Your task to perform on an android device: turn off notifications in google photos Image 0: 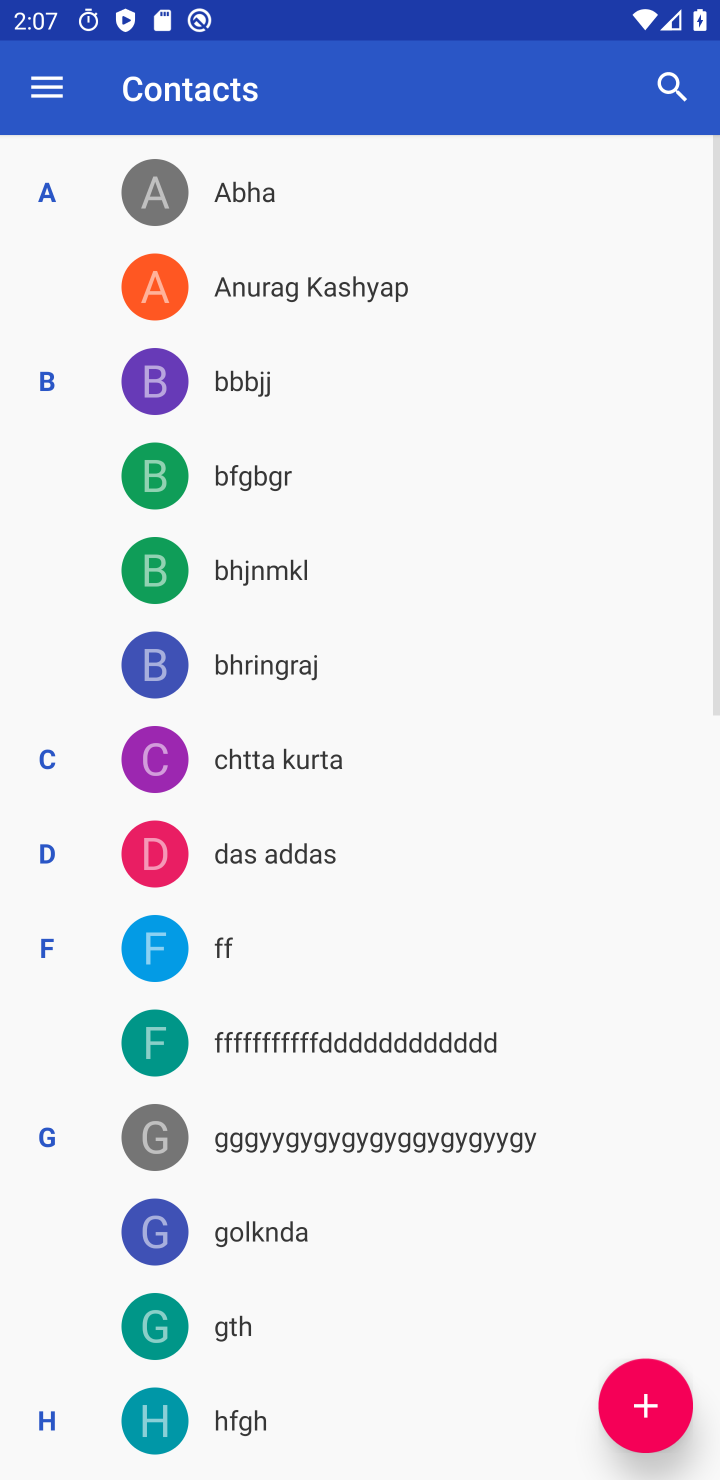
Step 0: press home button
Your task to perform on an android device: turn off notifications in google photos Image 1: 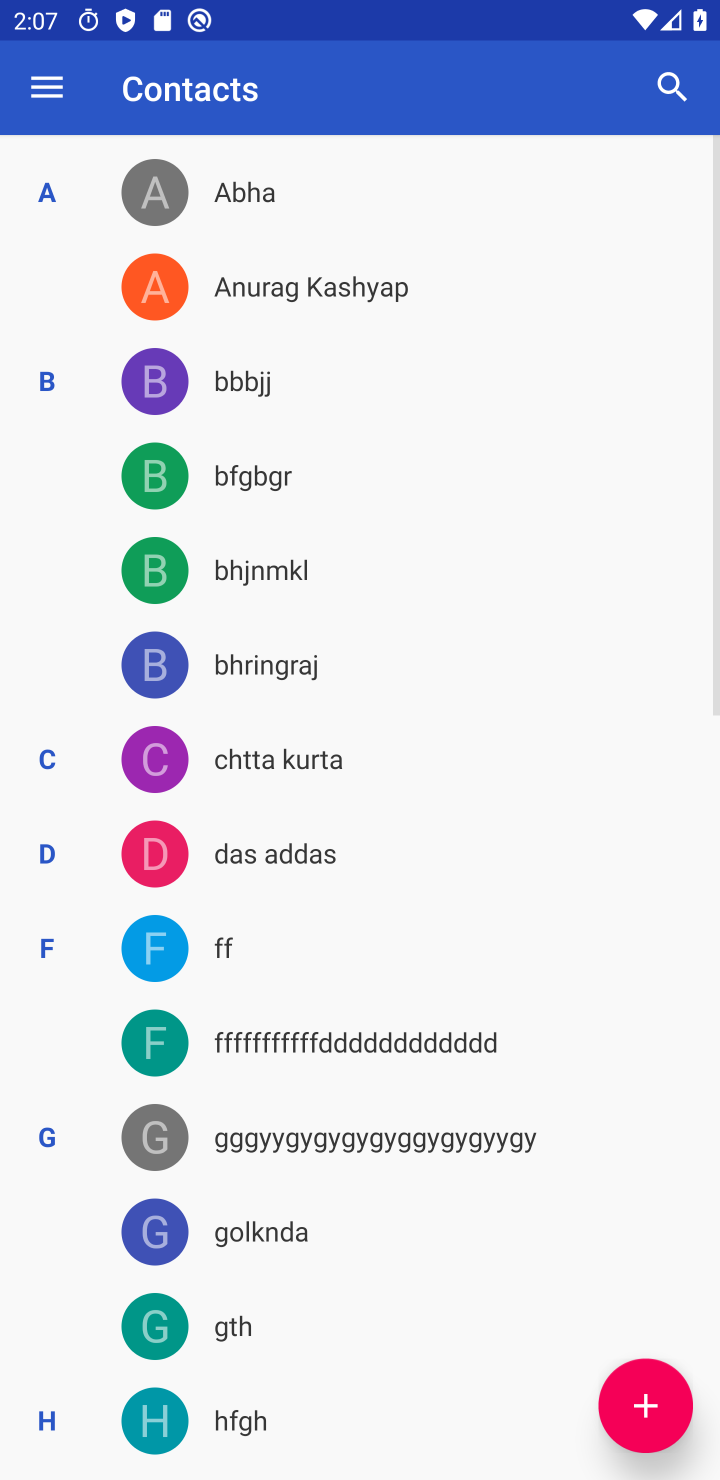
Step 1: click (486, 479)
Your task to perform on an android device: turn off notifications in google photos Image 2: 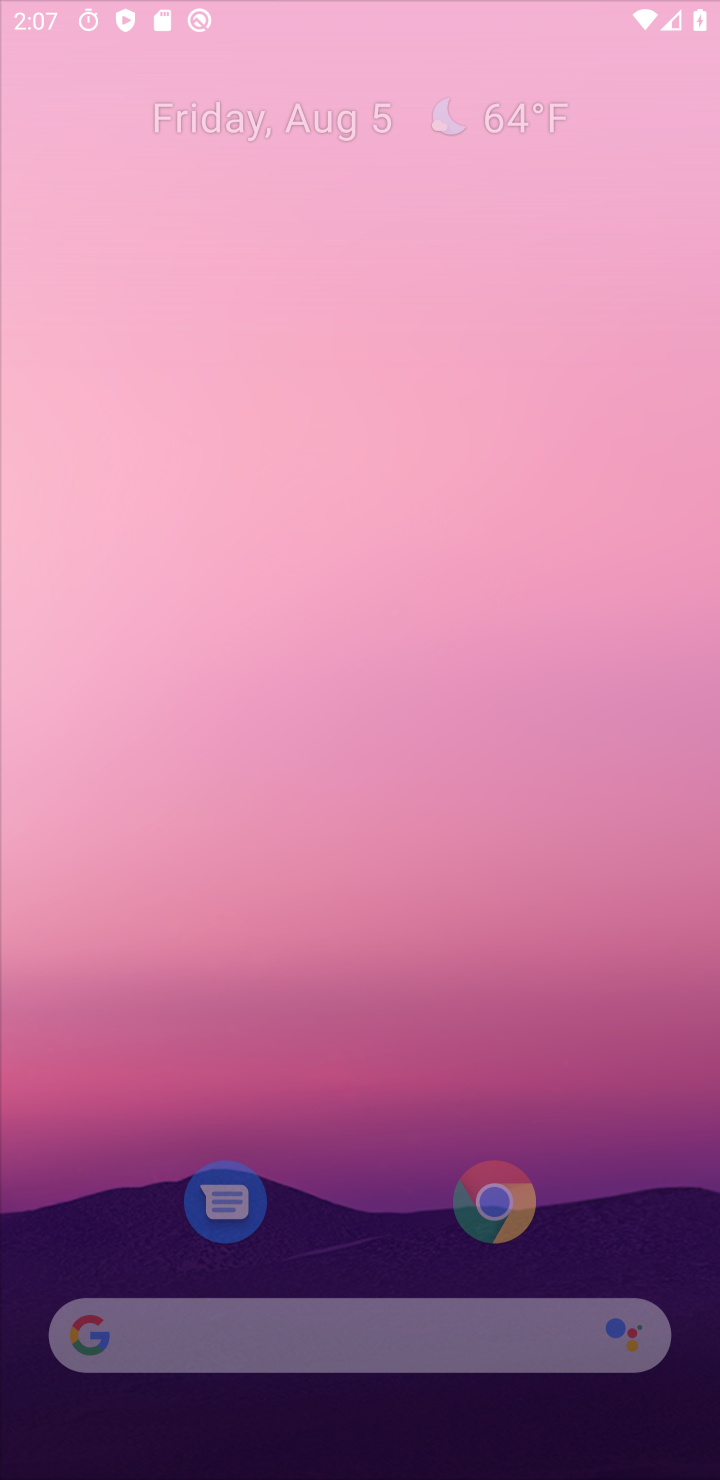
Step 2: drag from (319, 612) to (356, 449)
Your task to perform on an android device: turn off notifications in google photos Image 3: 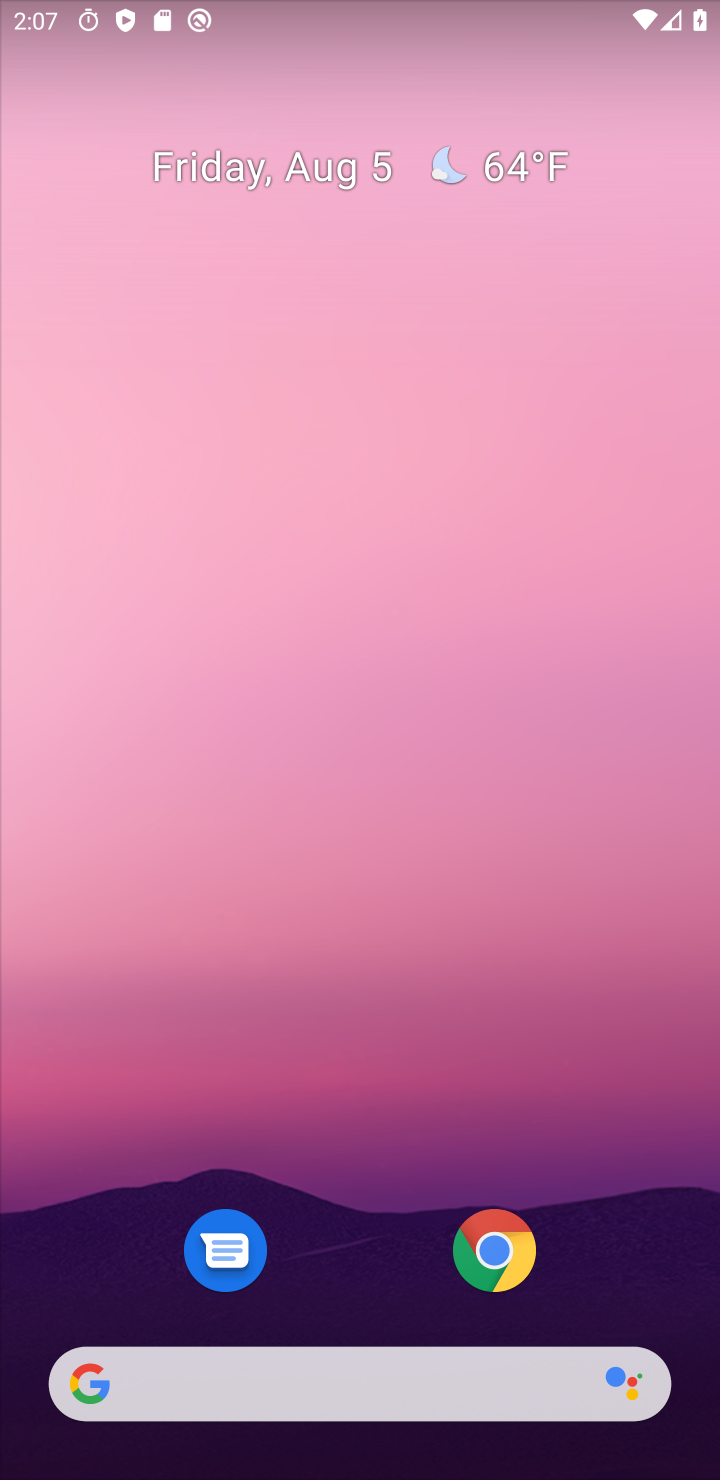
Step 3: drag from (447, 157) to (516, 6)
Your task to perform on an android device: turn off notifications in google photos Image 4: 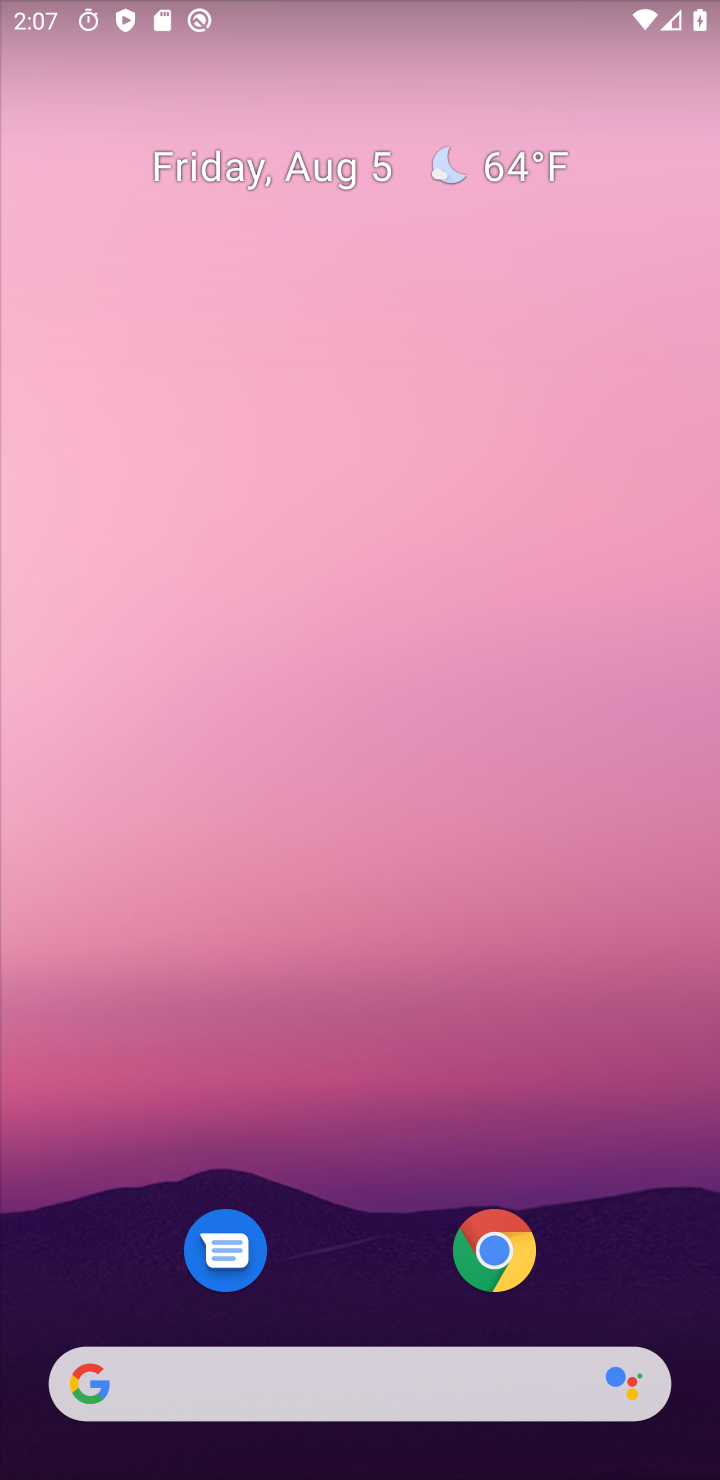
Step 4: drag from (338, 1190) to (469, 81)
Your task to perform on an android device: turn off notifications in google photos Image 5: 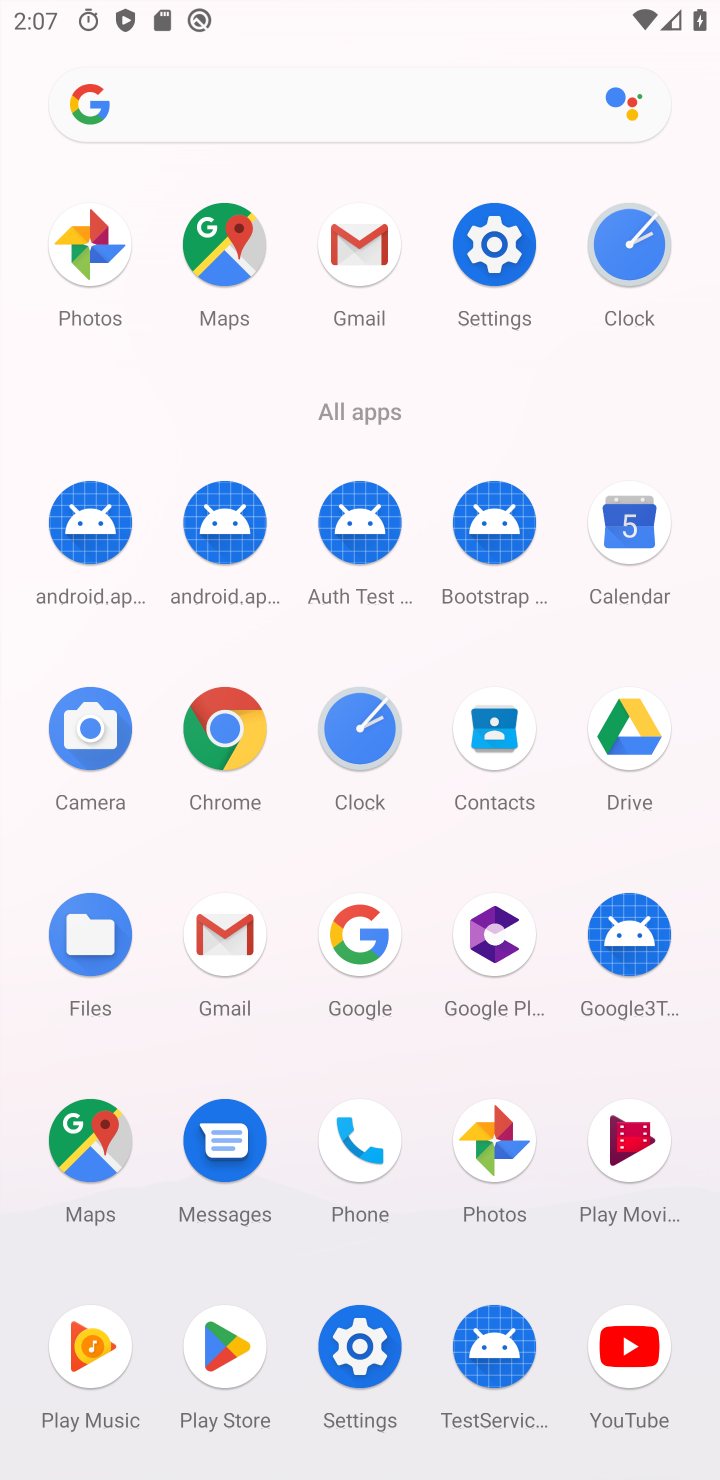
Step 5: click (456, 1144)
Your task to perform on an android device: turn off notifications in google photos Image 6: 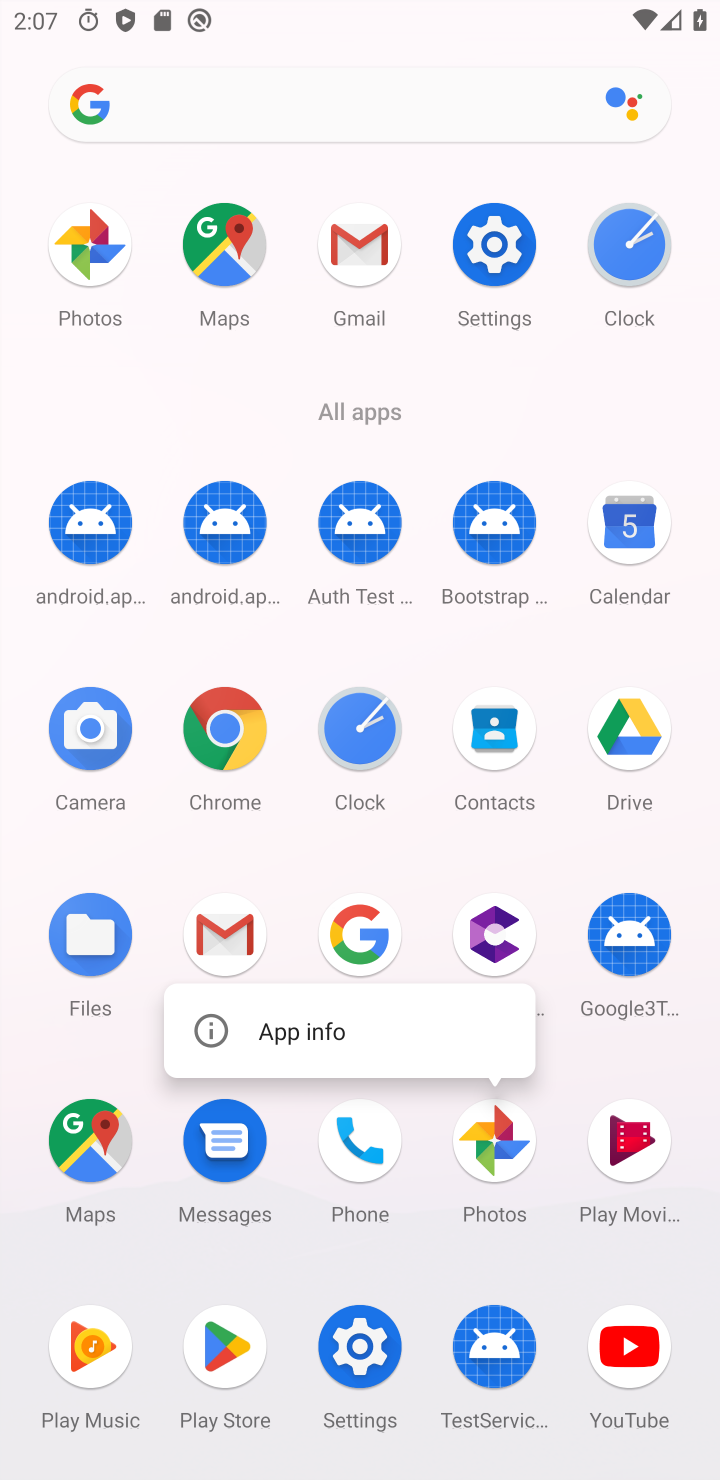
Step 6: click (270, 1027)
Your task to perform on an android device: turn off notifications in google photos Image 7: 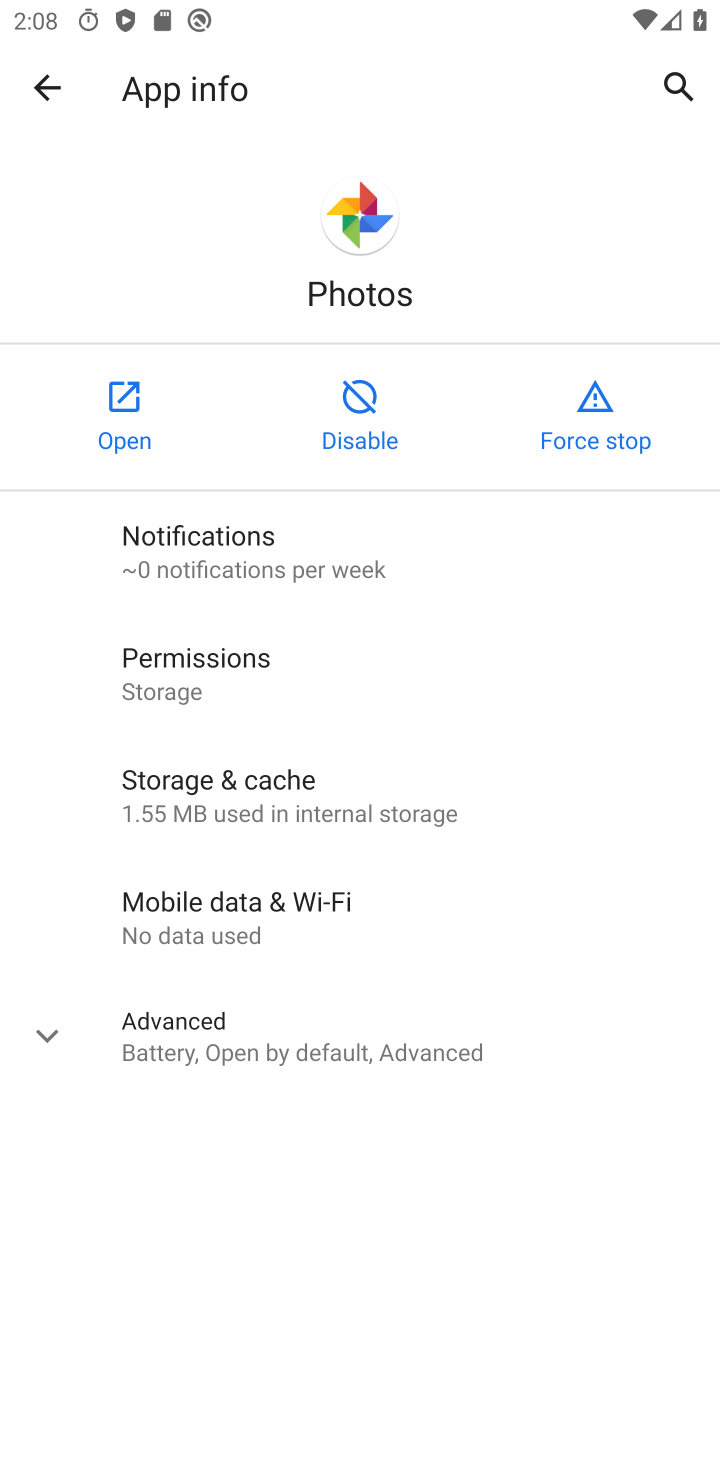
Step 7: click (86, 406)
Your task to perform on an android device: turn off notifications in google photos Image 8: 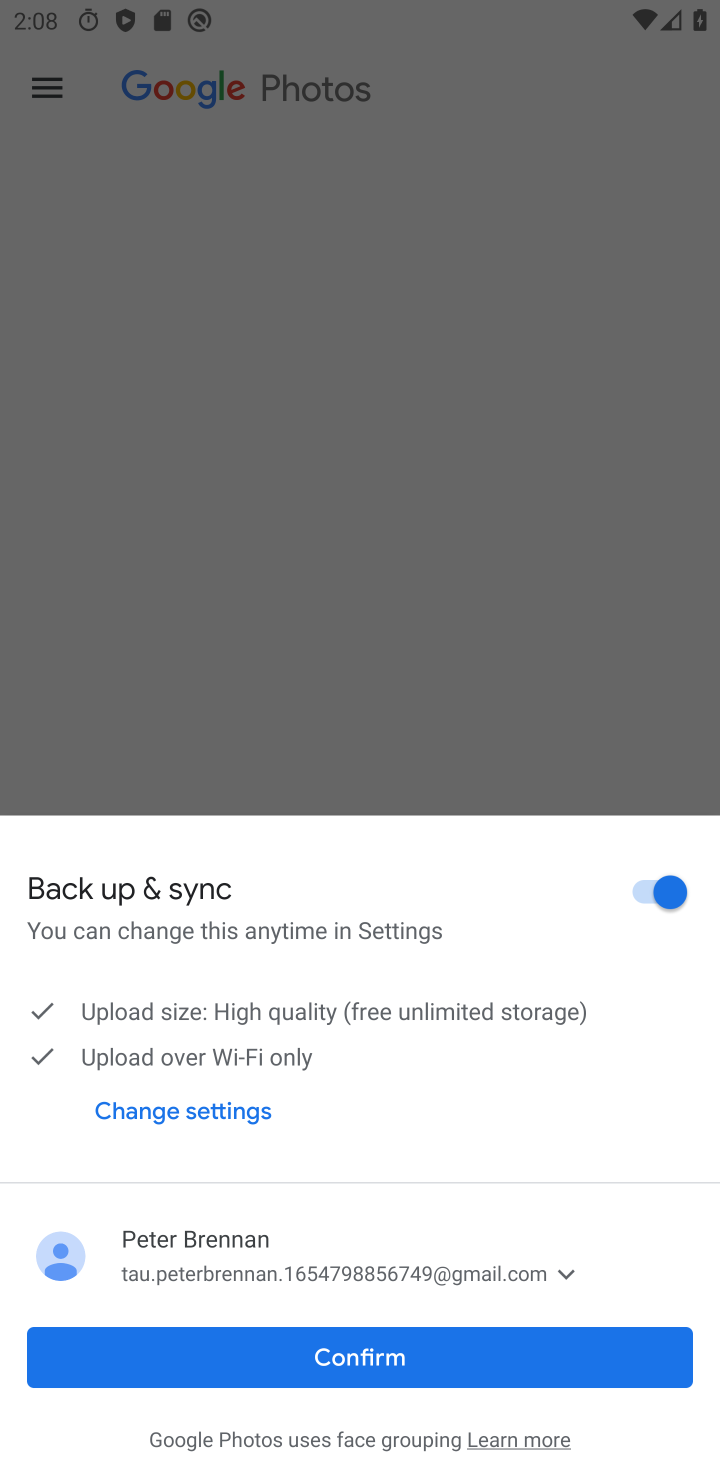
Step 8: click (355, 1353)
Your task to perform on an android device: turn off notifications in google photos Image 9: 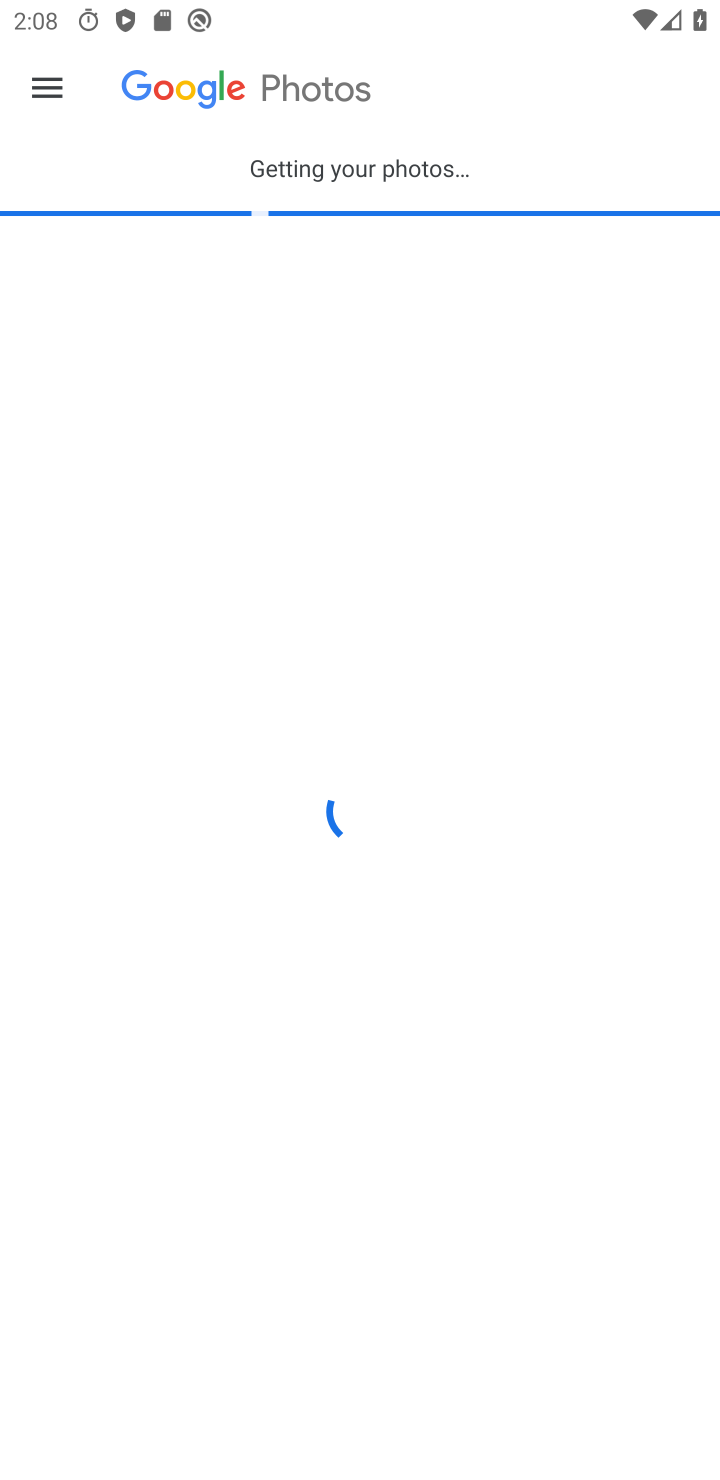
Step 9: click (25, 98)
Your task to perform on an android device: turn off notifications in google photos Image 10: 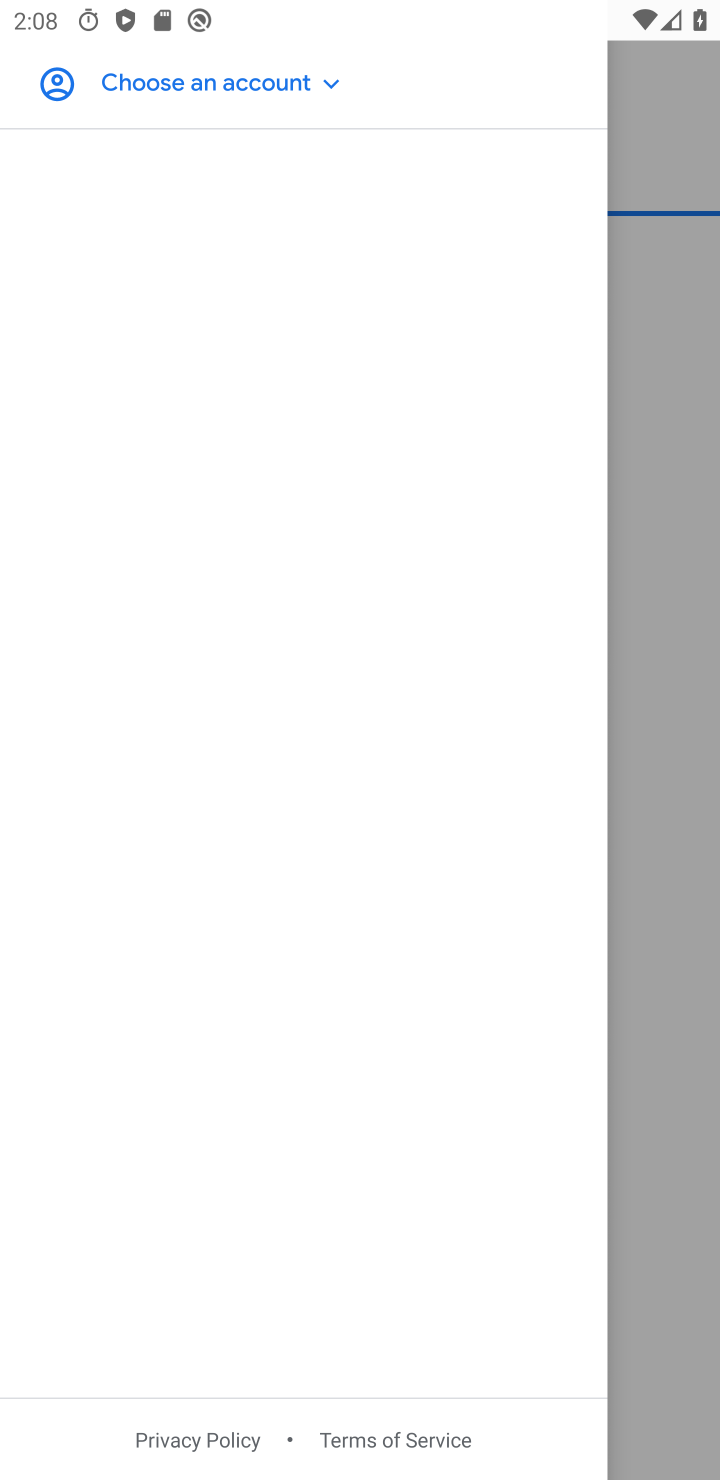
Step 10: drag from (280, 1255) to (419, 270)
Your task to perform on an android device: turn off notifications in google photos Image 11: 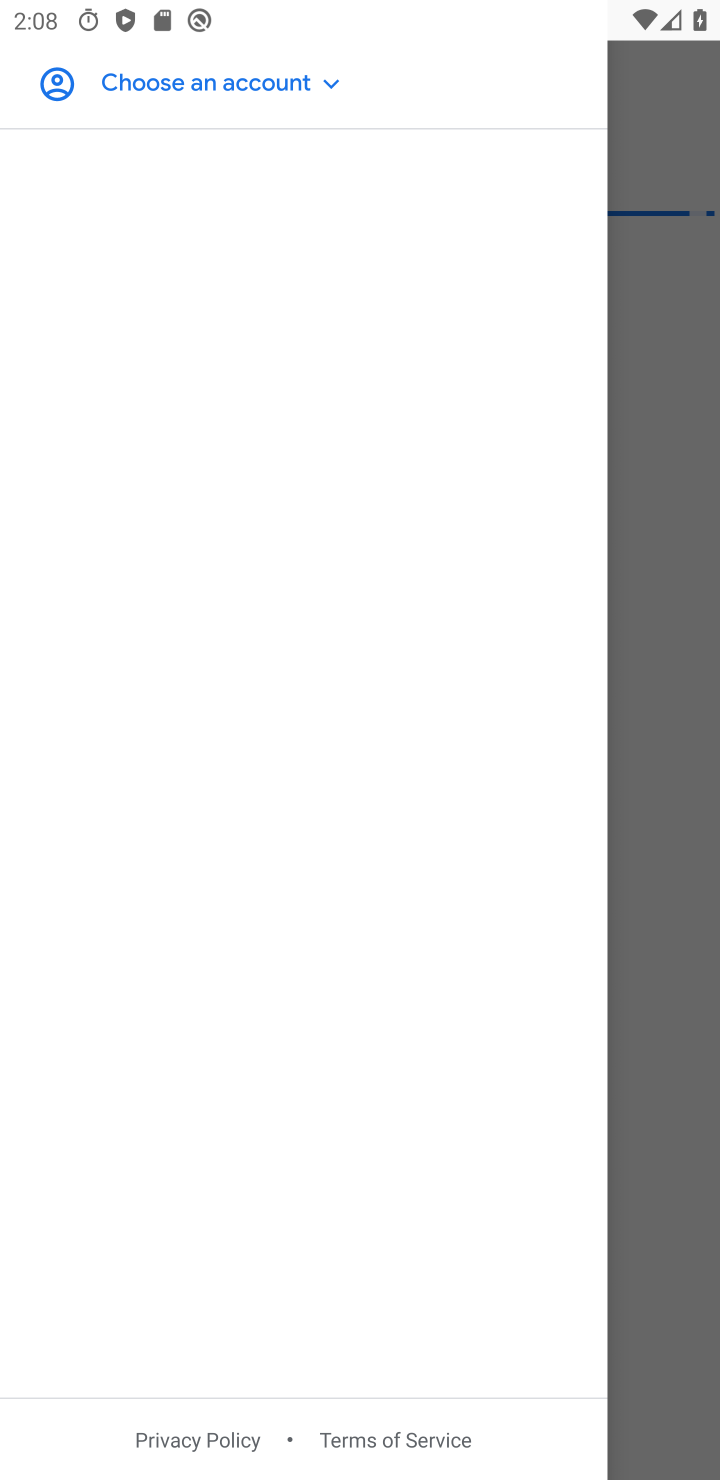
Step 11: click (606, 347)
Your task to perform on an android device: turn off notifications in google photos Image 12: 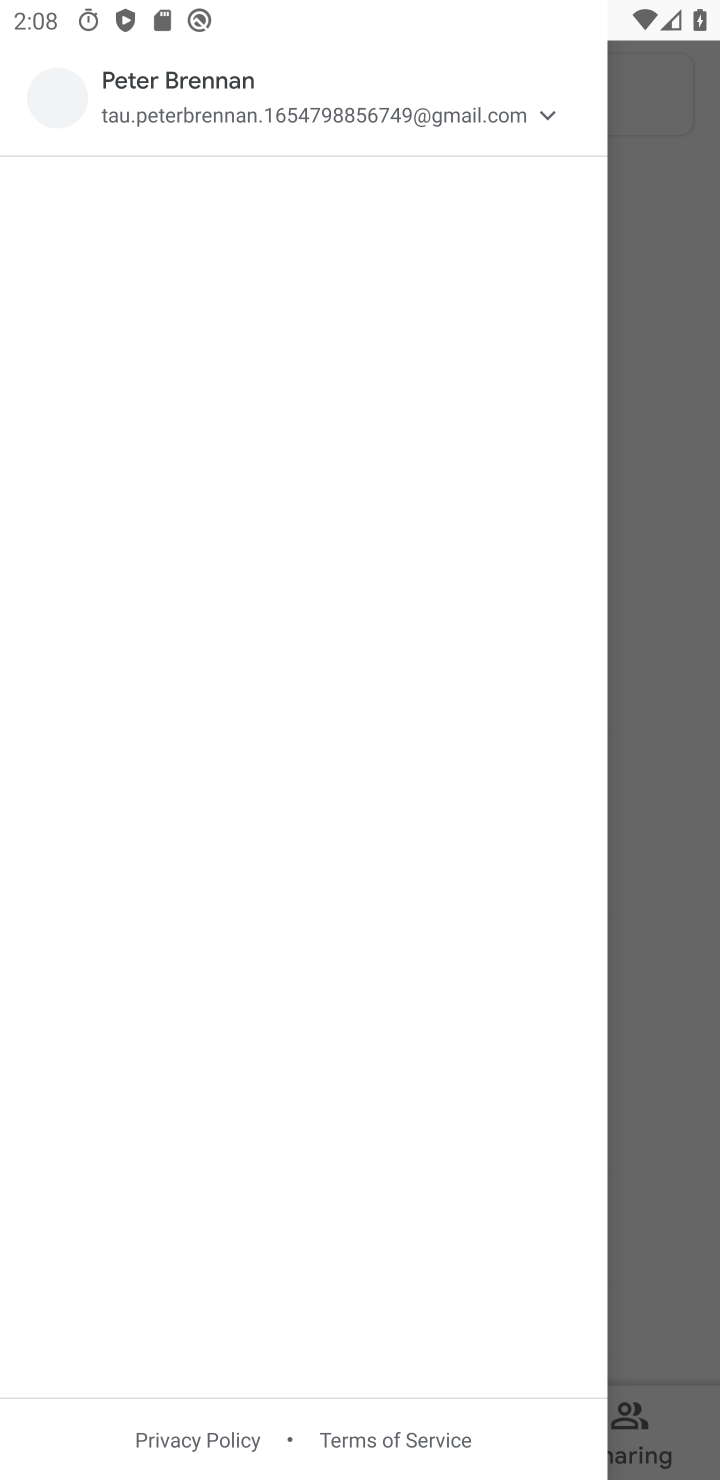
Step 12: click (660, 384)
Your task to perform on an android device: turn off notifications in google photos Image 13: 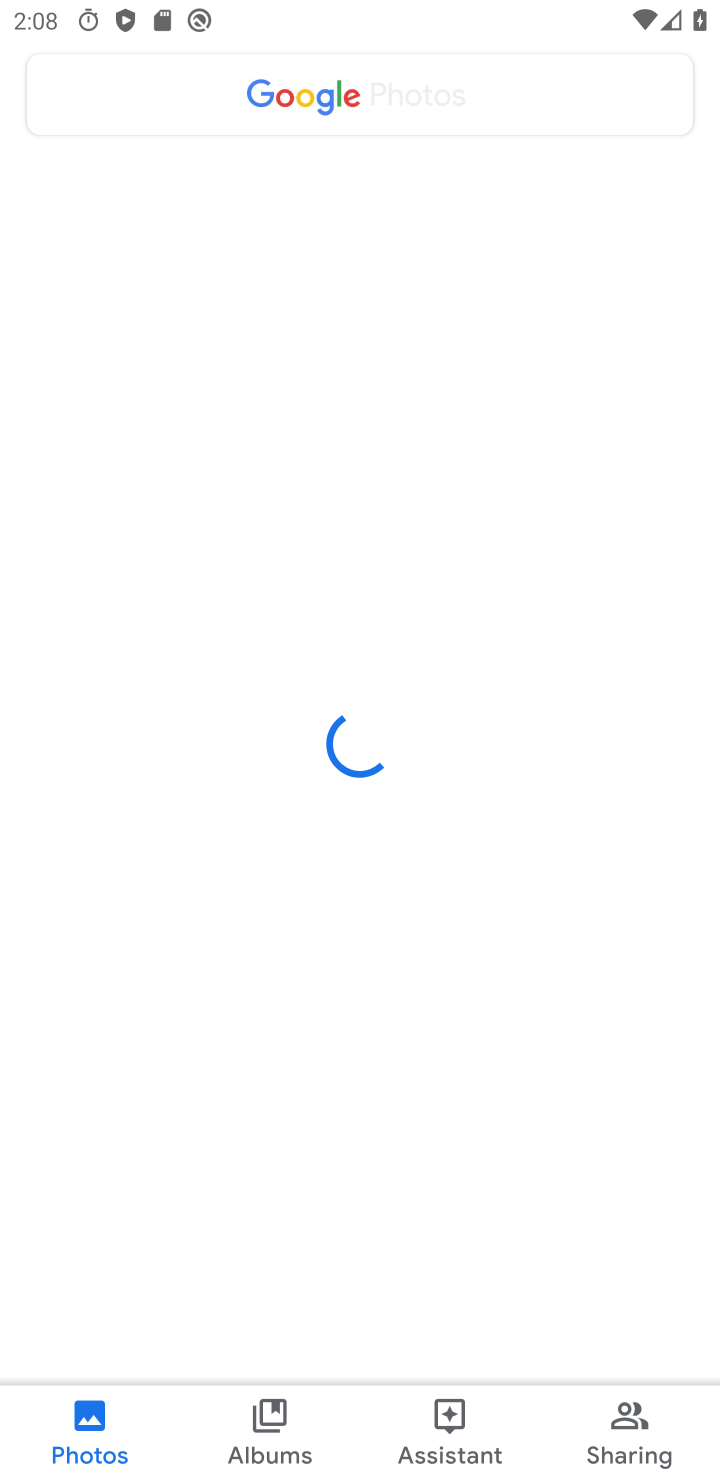
Step 13: press back button
Your task to perform on an android device: turn off notifications in google photos Image 14: 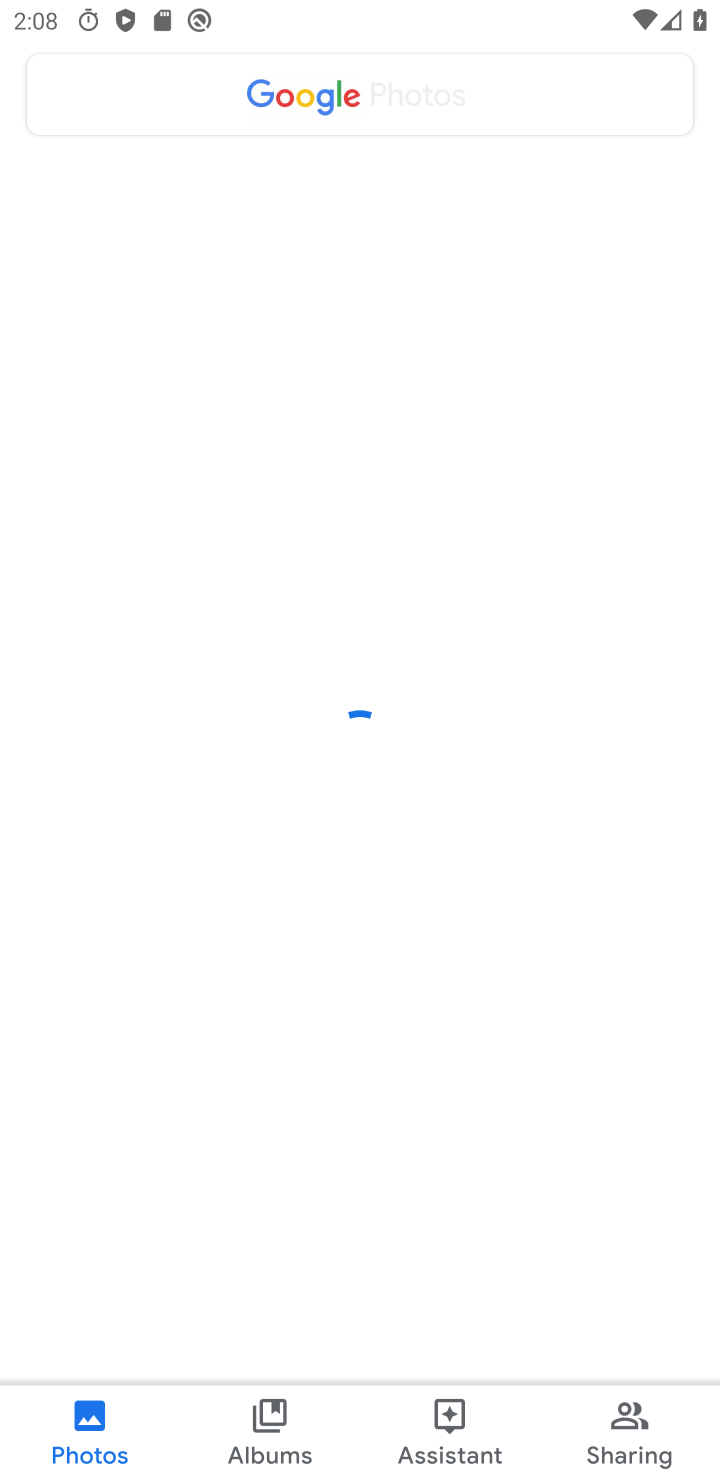
Step 14: click (51, 98)
Your task to perform on an android device: turn off notifications in google photos Image 15: 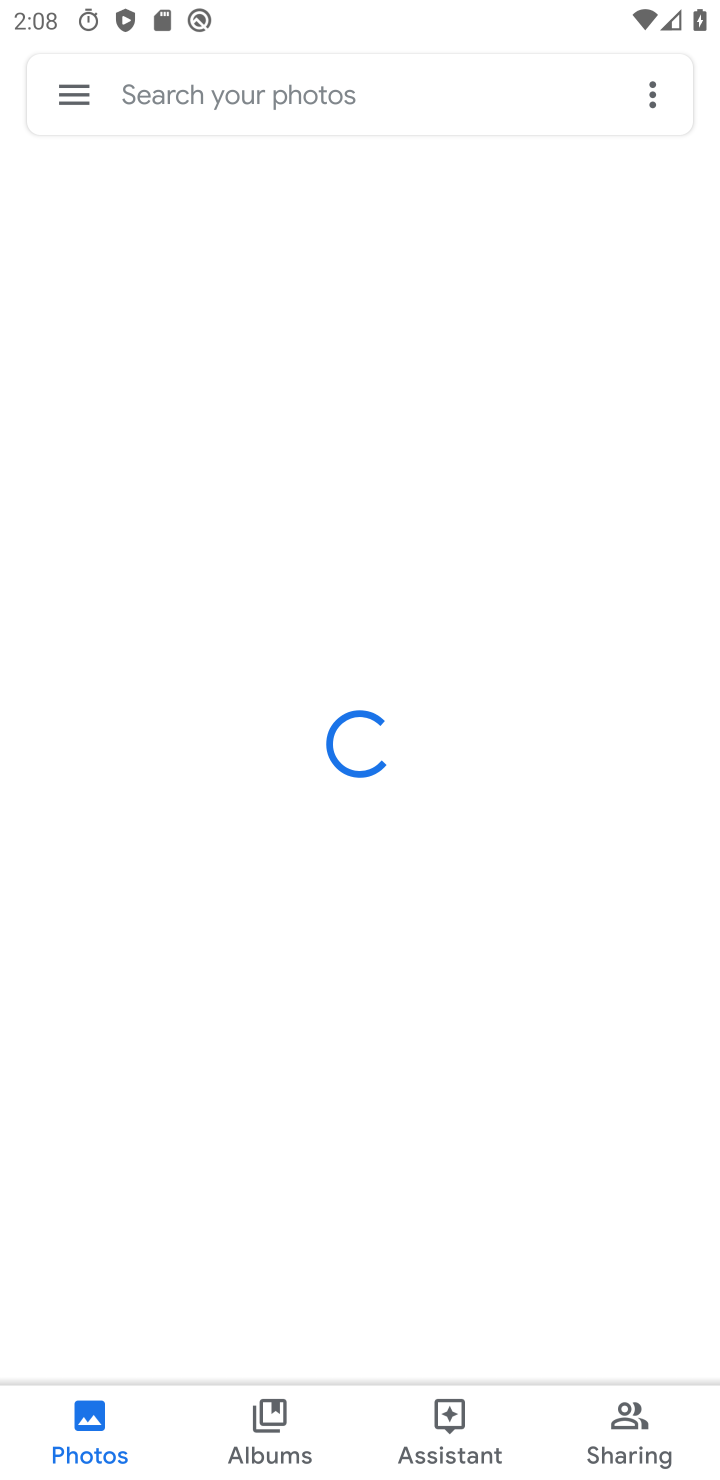
Step 15: click (72, 87)
Your task to perform on an android device: turn off notifications in google photos Image 16: 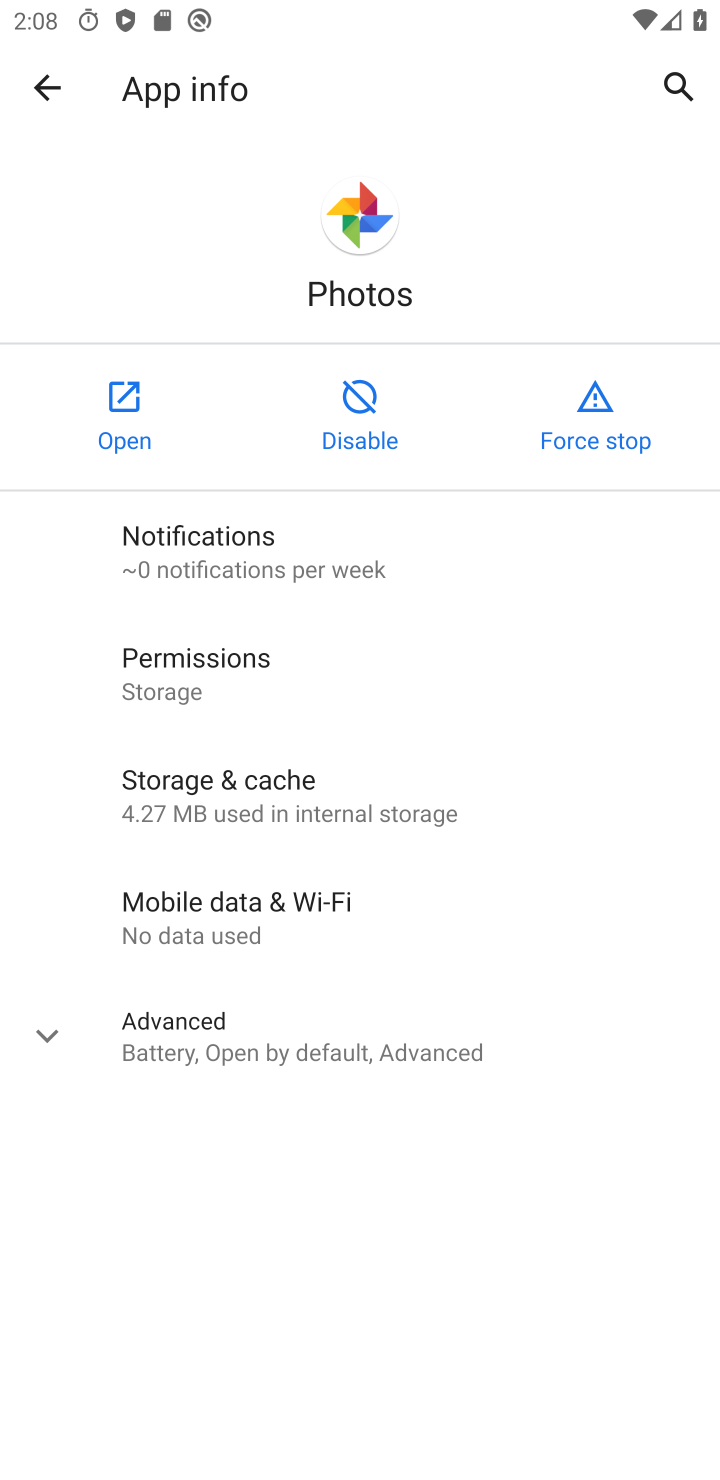
Step 16: click (108, 366)
Your task to perform on an android device: turn off notifications in google photos Image 17: 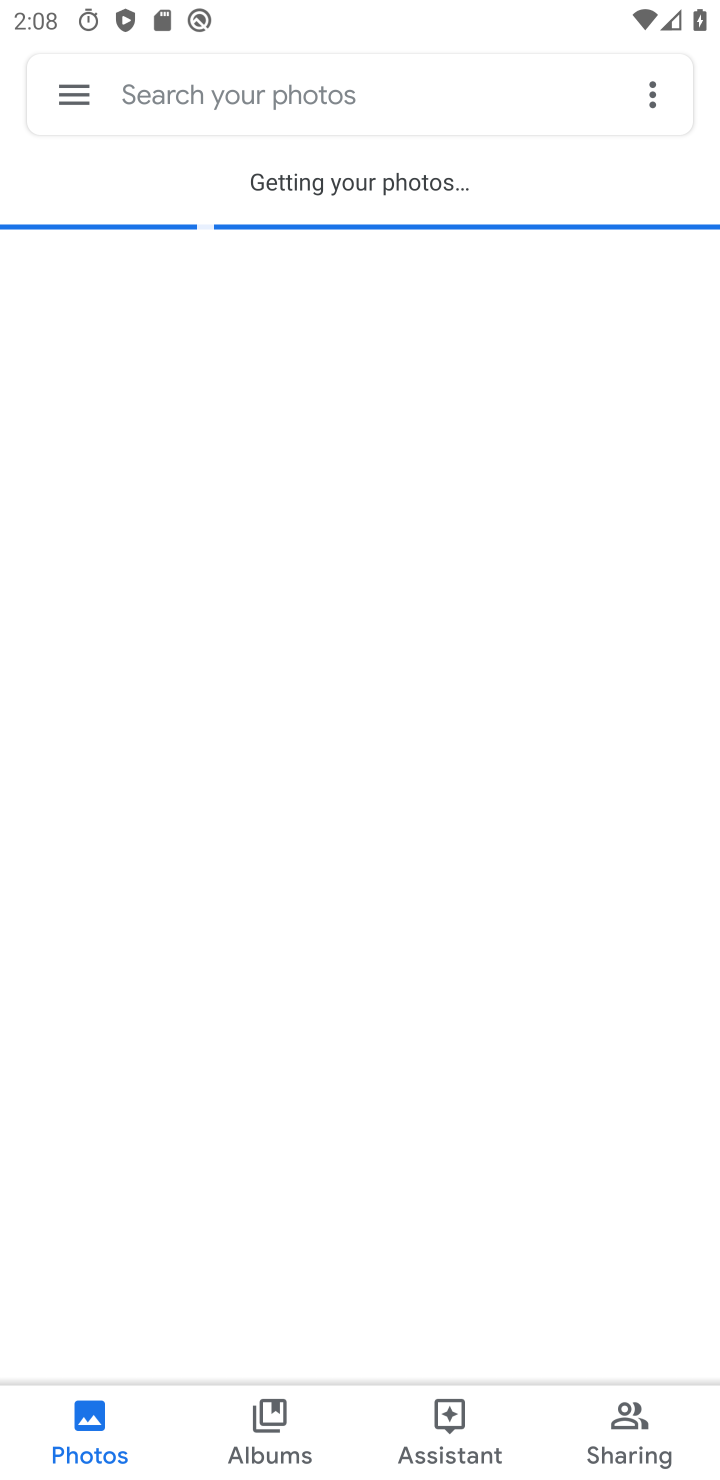
Step 17: click (134, 95)
Your task to perform on an android device: turn off notifications in google photos Image 18: 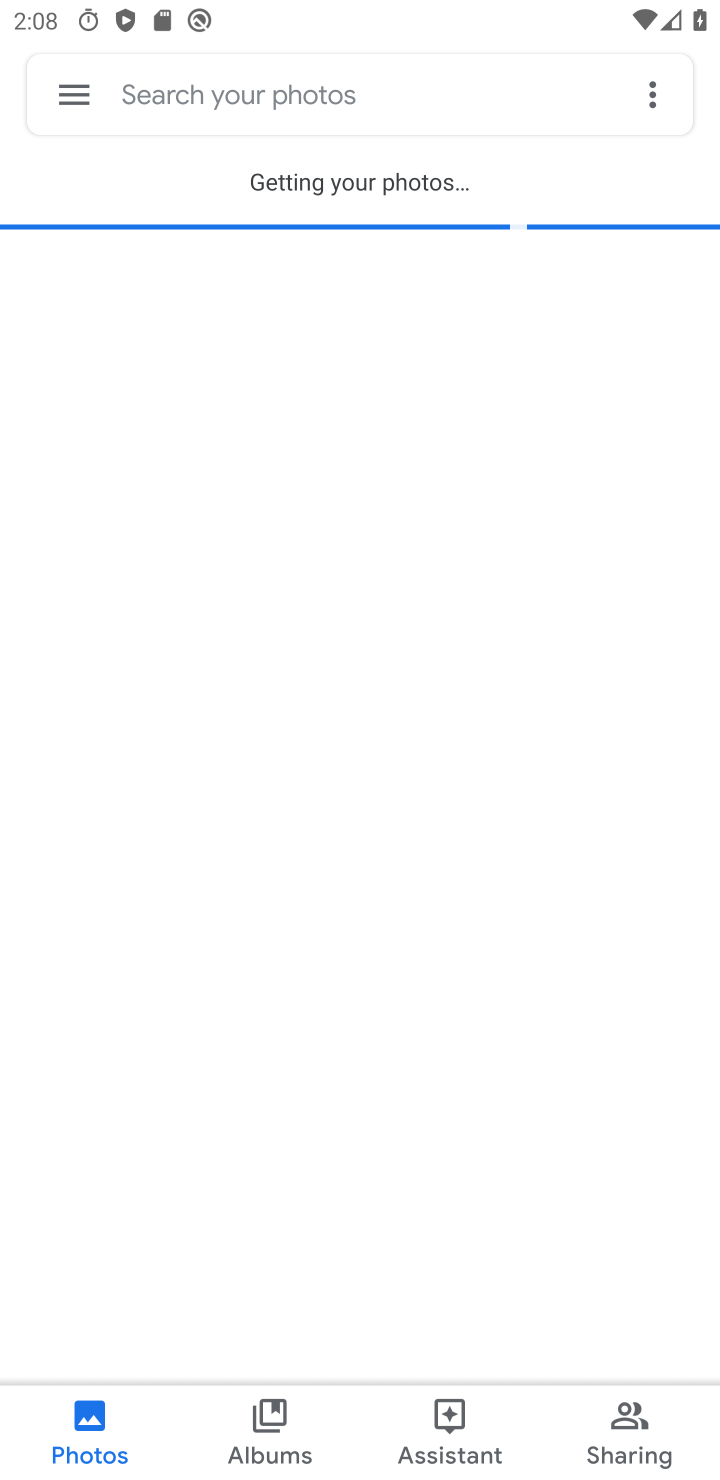
Step 18: click (103, 93)
Your task to perform on an android device: turn off notifications in google photos Image 19: 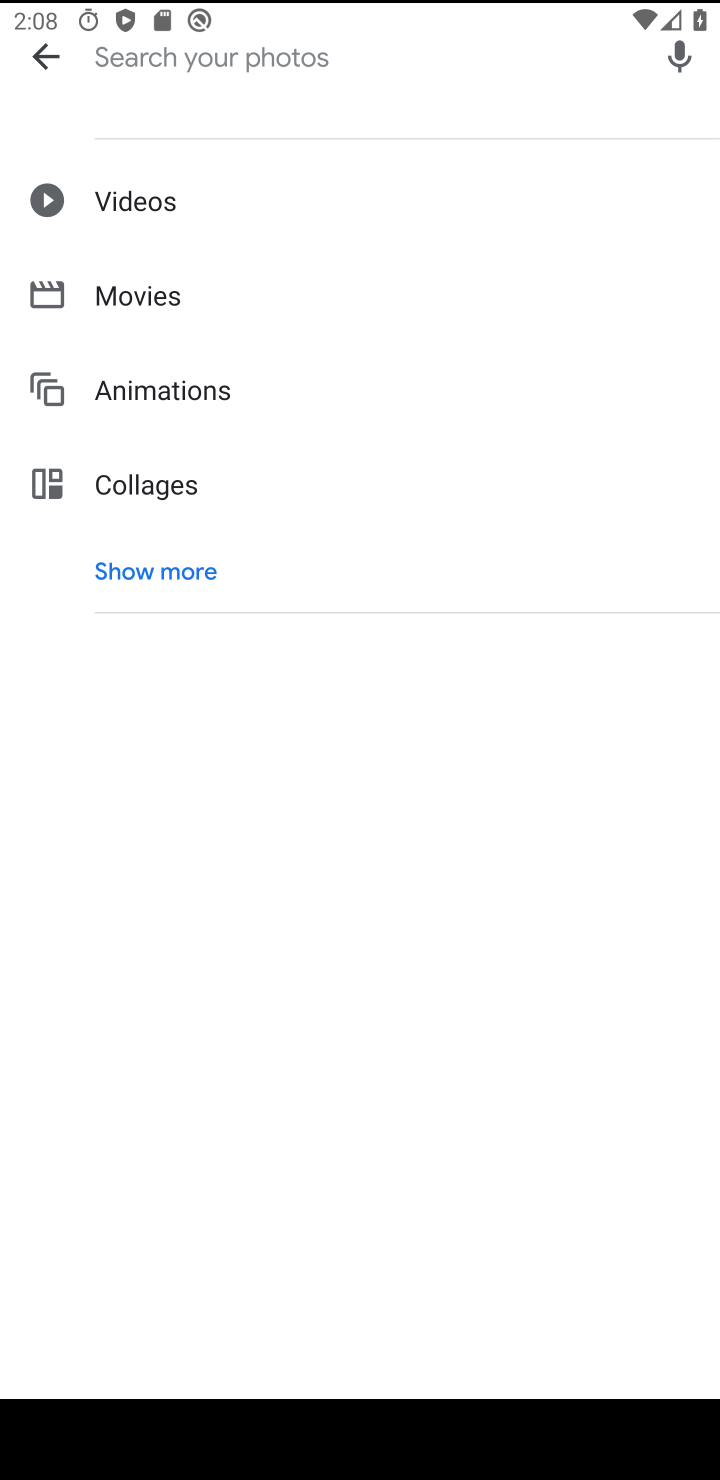
Step 19: click (36, 44)
Your task to perform on an android device: turn off notifications in google photos Image 20: 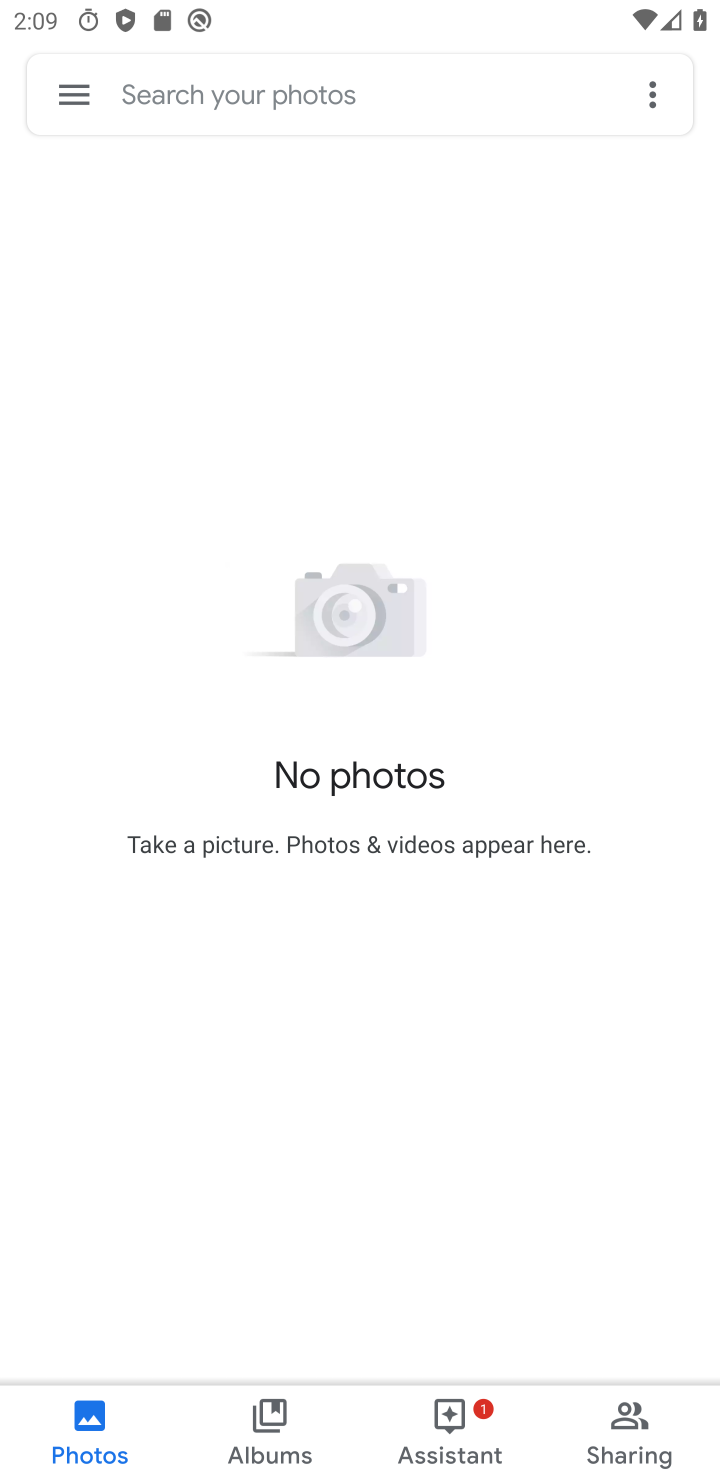
Step 20: drag from (452, 977) to (389, 531)
Your task to perform on an android device: turn off notifications in google photos Image 21: 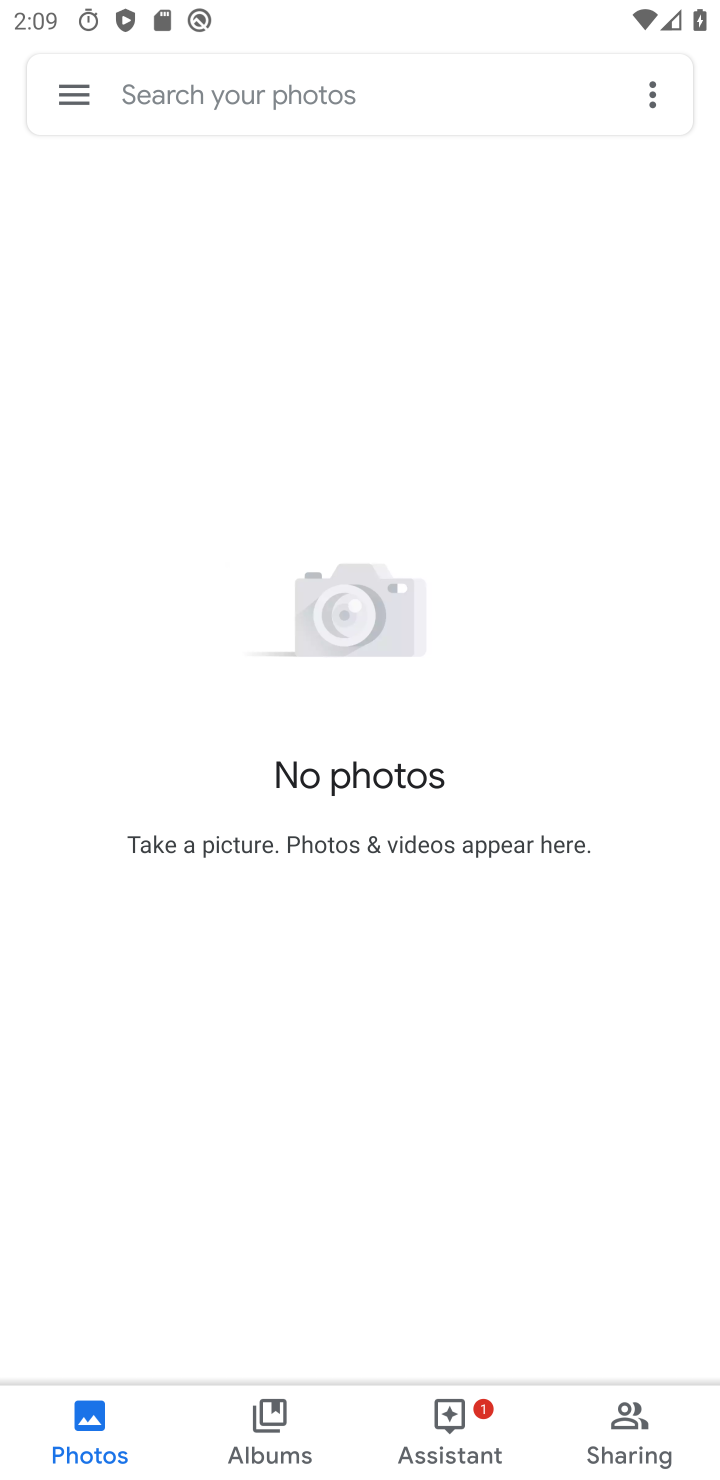
Step 21: drag from (336, 1250) to (441, 215)
Your task to perform on an android device: turn off notifications in google photos Image 22: 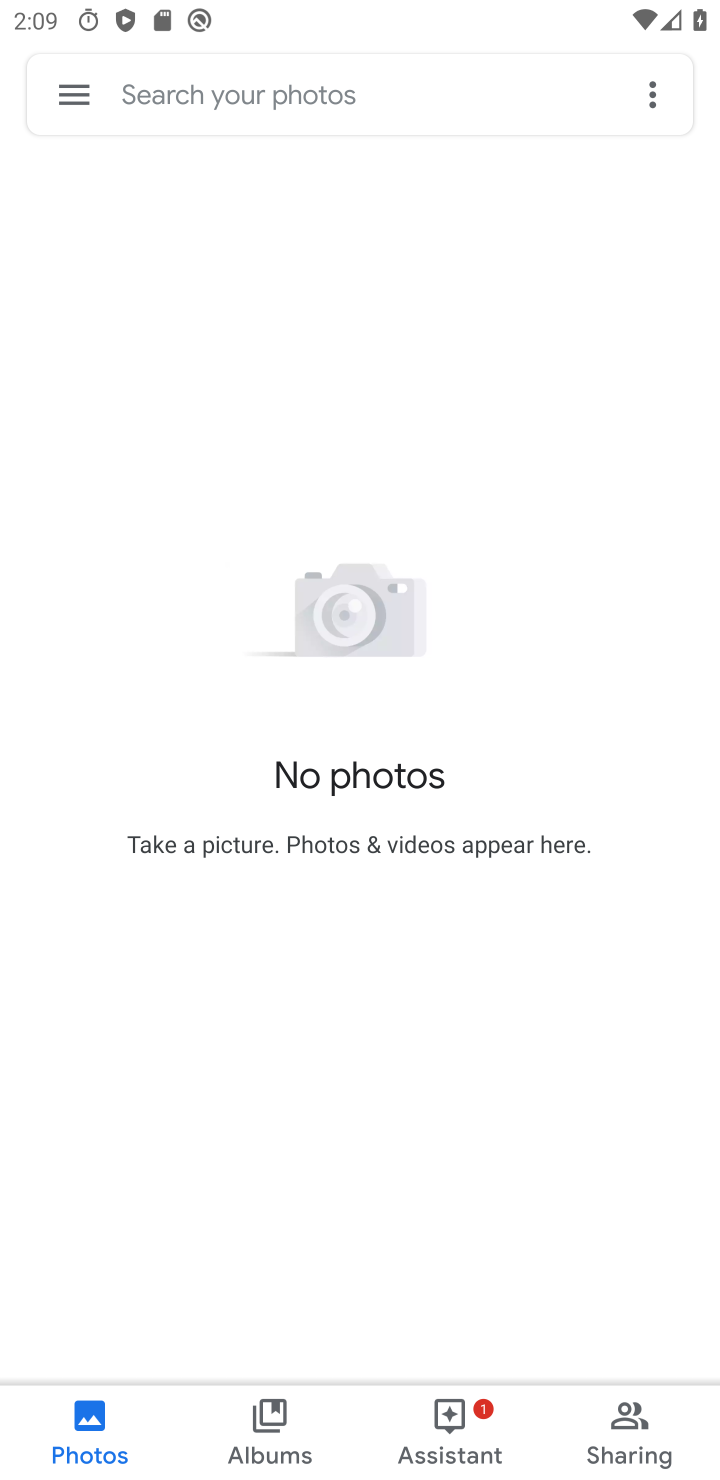
Step 22: drag from (518, 1107) to (476, 472)
Your task to perform on an android device: turn off notifications in google photos Image 23: 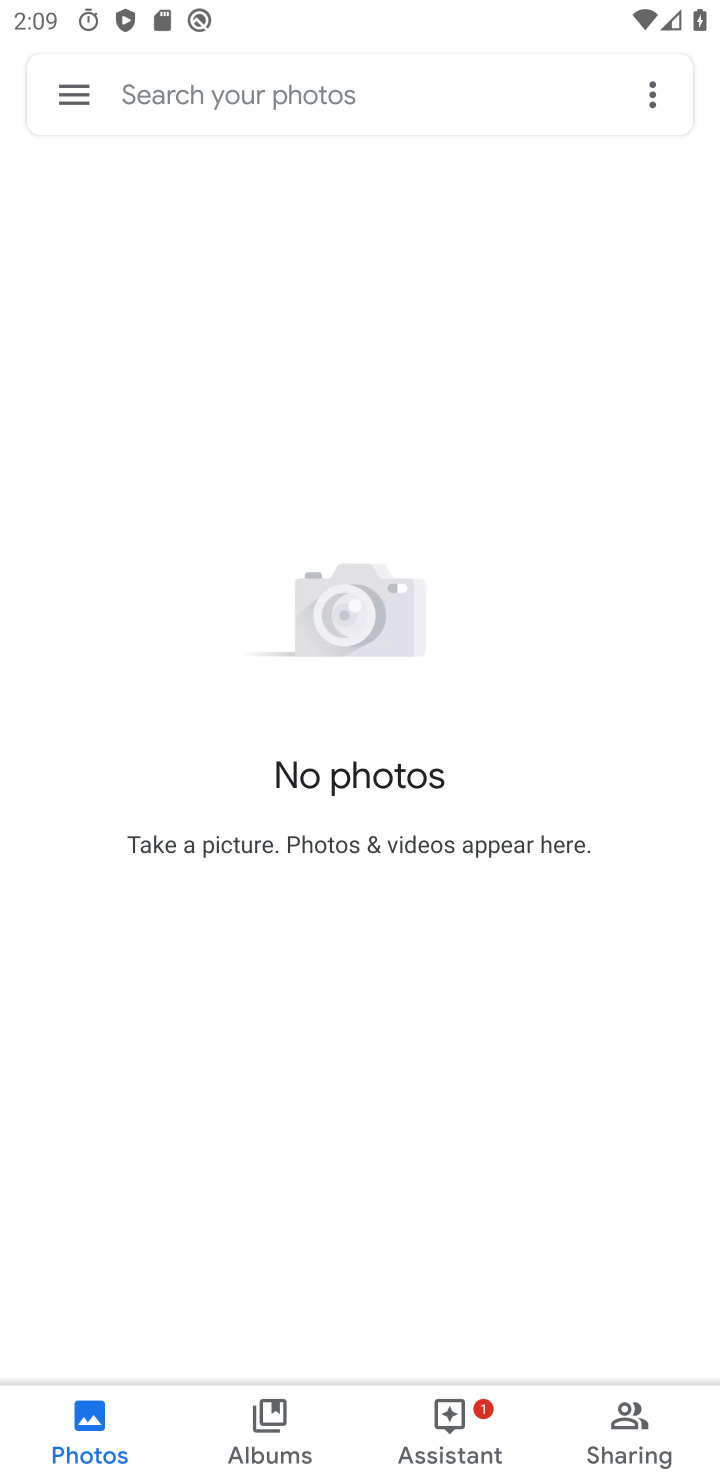
Step 23: click (71, 116)
Your task to perform on an android device: turn off notifications in google photos Image 24: 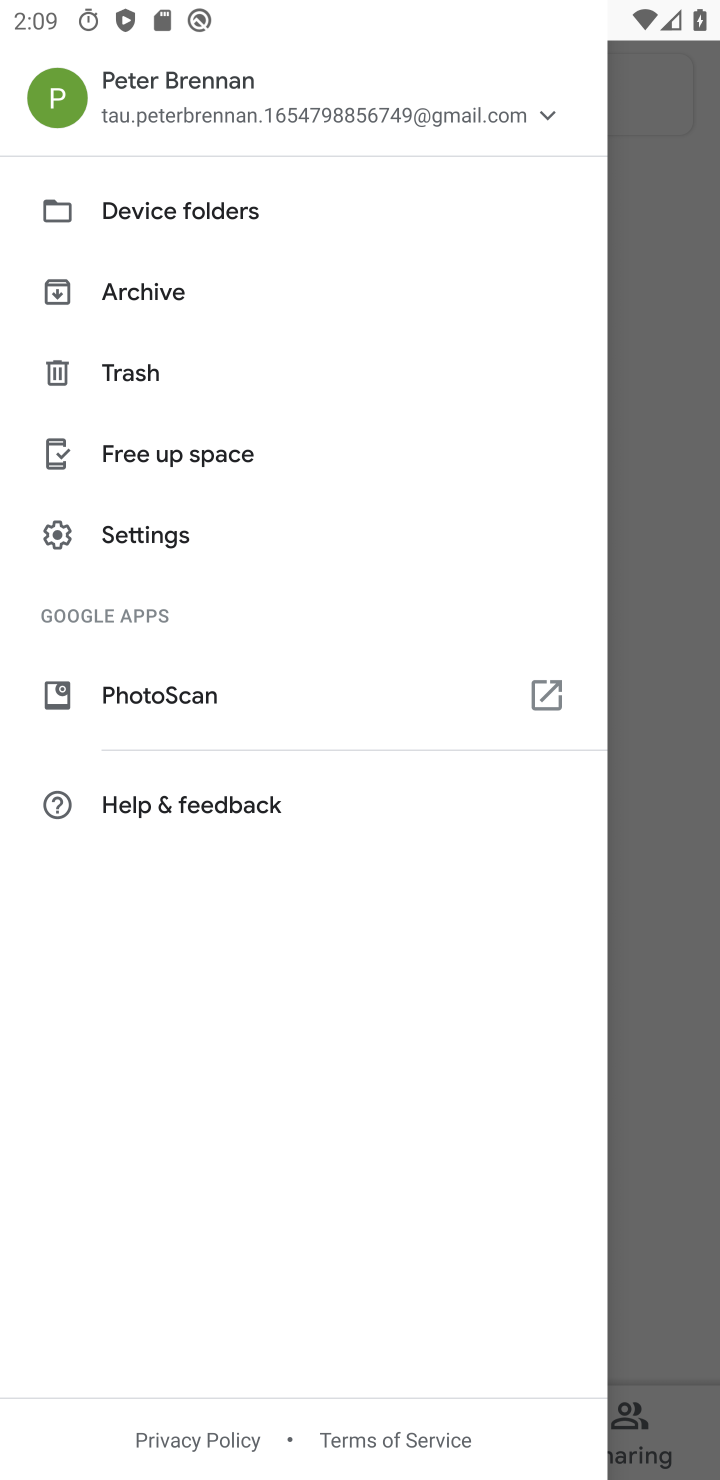
Step 24: click (135, 559)
Your task to perform on an android device: turn off notifications in google photos Image 25: 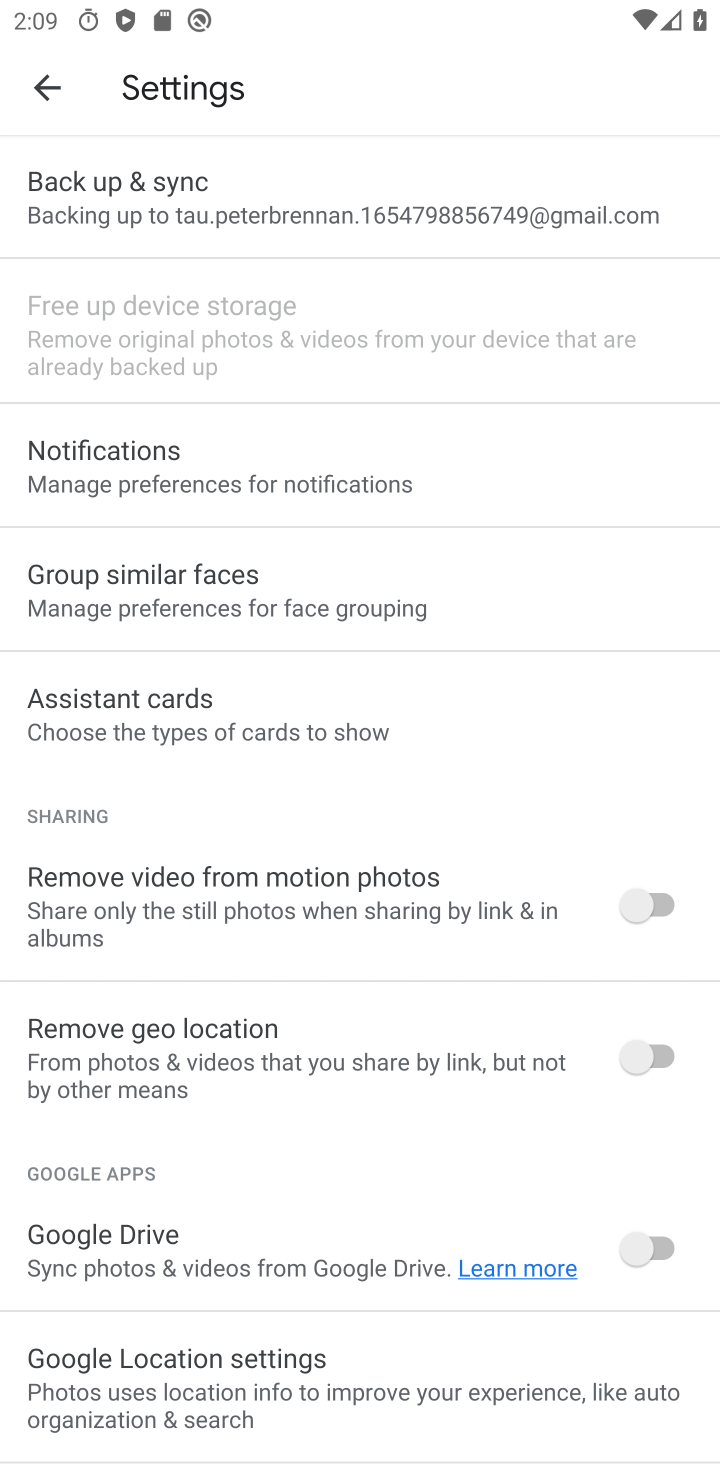
Step 25: click (240, 454)
Your task to perform on an android device: turn off notifications in google photos Image 26: 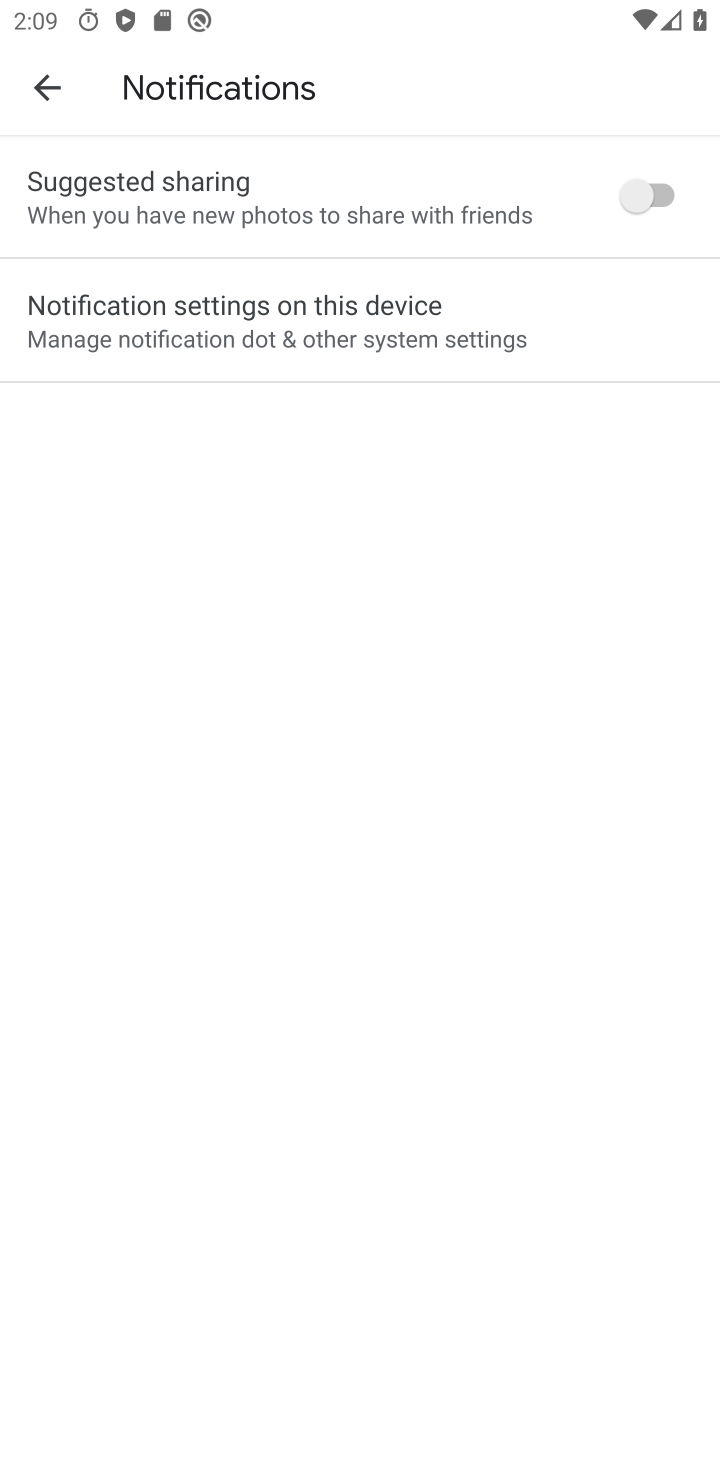
Step 26: click (302, 368)
Your task to perform on an android device: turn off notifications in google photos Image 27: 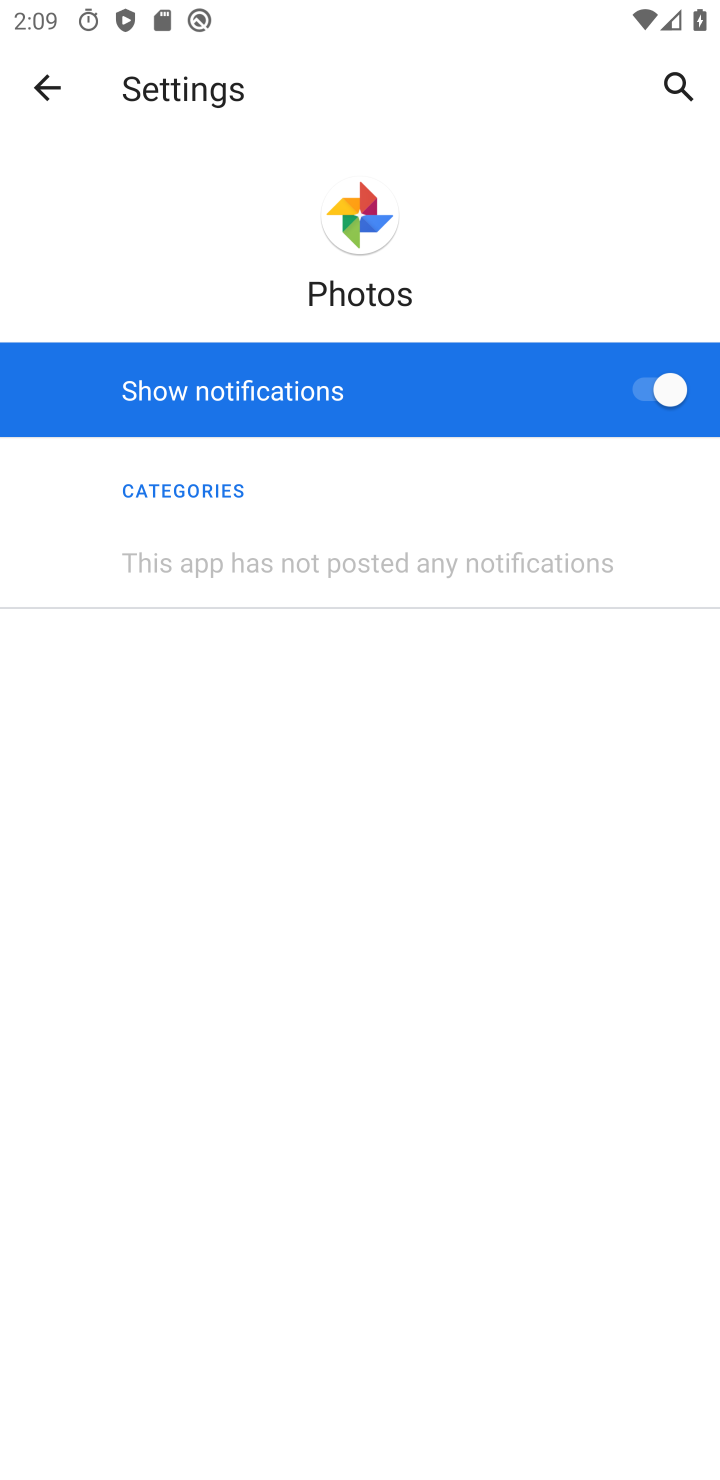
Step 27: click (638, 402)
Your task to perform on an android device: turn off notifications in google photos Image 28: 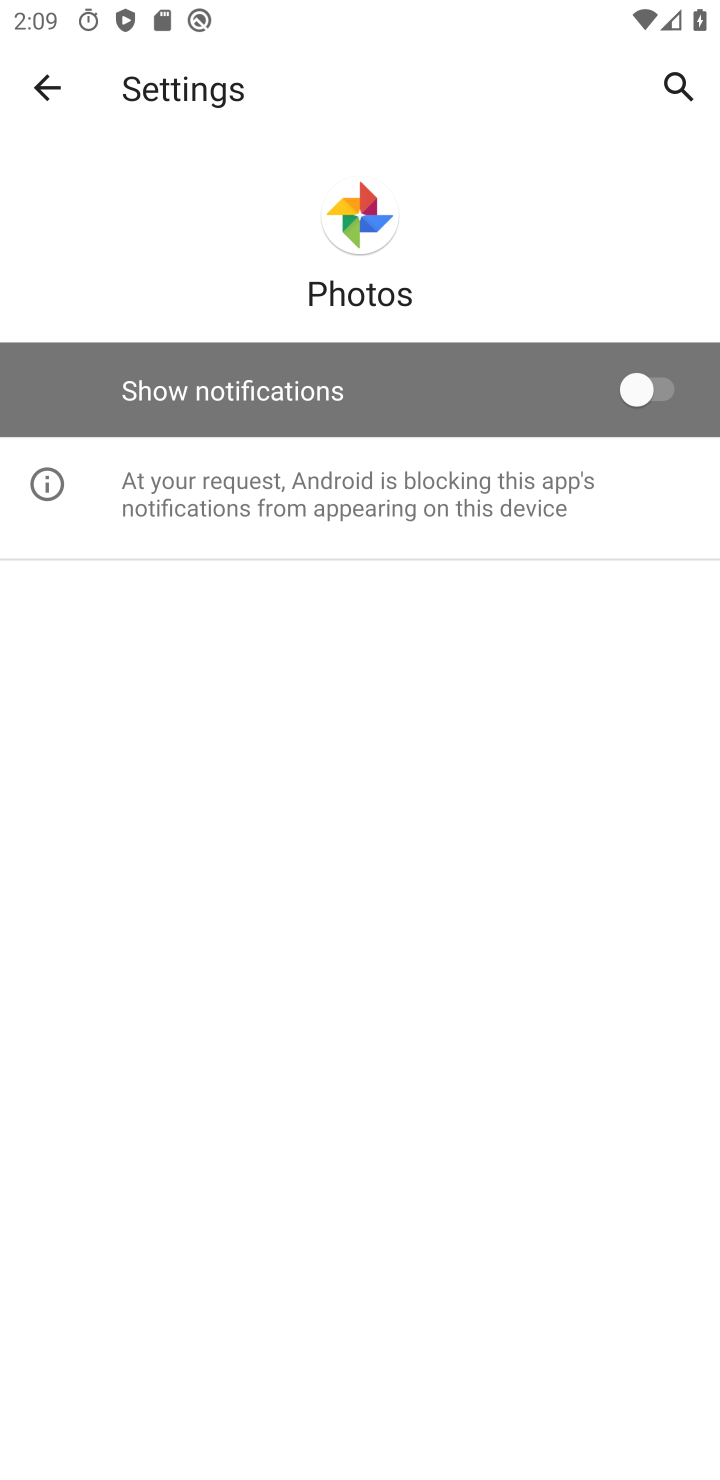
Step 28: task complete